Your task to perform on an android device: turn off sleep mode Image 0: 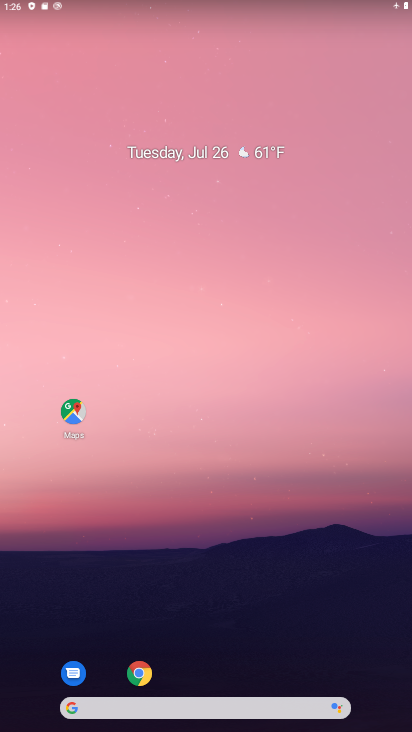
Step 0: drag from (227, 660) to (277, 166)
Your task to perform on an android device: turn off sleep mode Image 1: 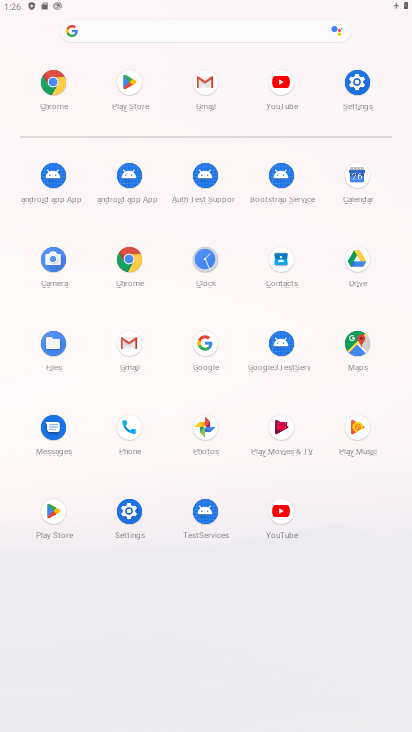
Step 1: click (130, 505)
Your task to perform on an android device: turn off sleep mode Image 2: 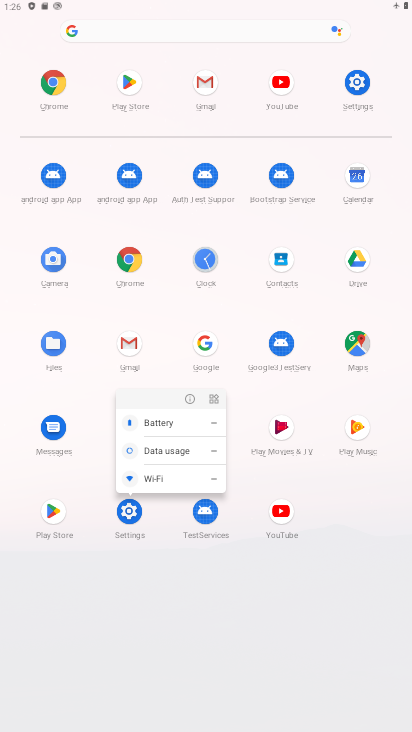
Step 2: click (193, 398)
Your task to perform on an android device: turn off sleep mode Image 3: 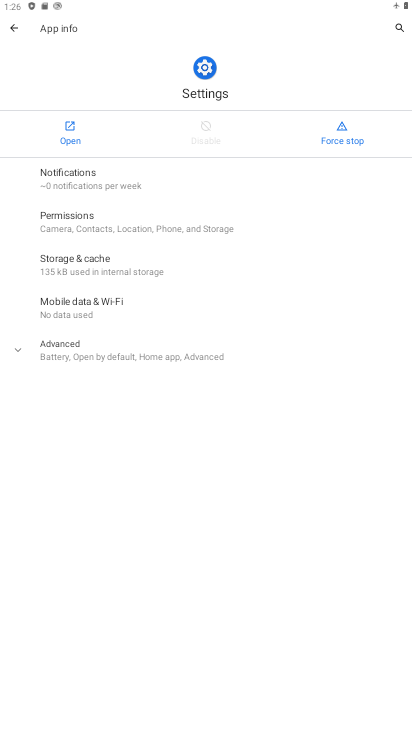
Step 3: click (72, 130)
Your task to perform on an android device: turn off sleep mode Image 4: 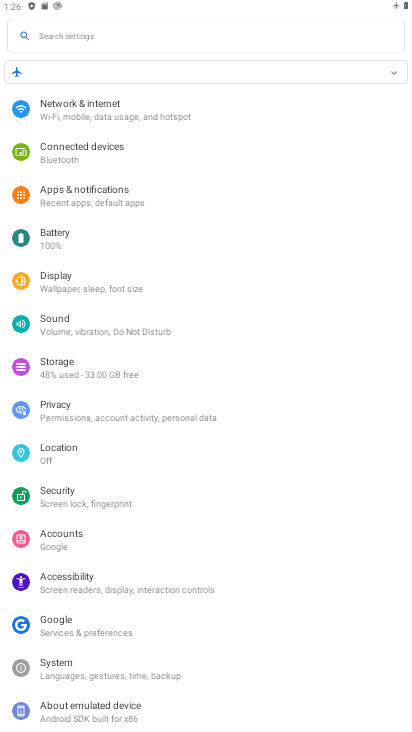
Step 4: drag from (153, 527) to (189, 231)
Your task to perform on an android device: turn off sleep mode Image 5: 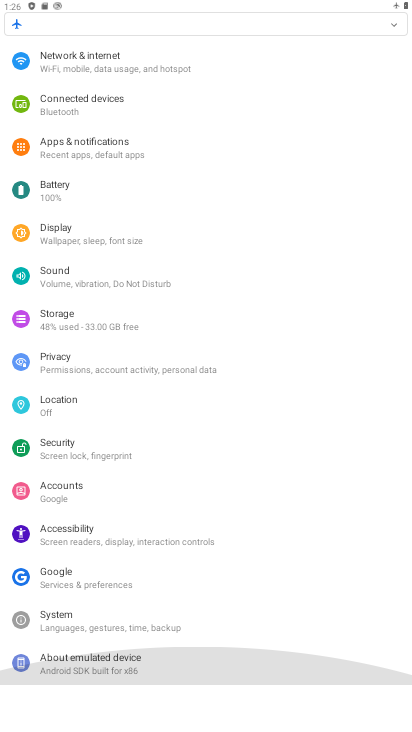
Step 5: drag from (189, 212) to (192, 695)
Your task to perform on an android device: turn off sleep mode Image 6: 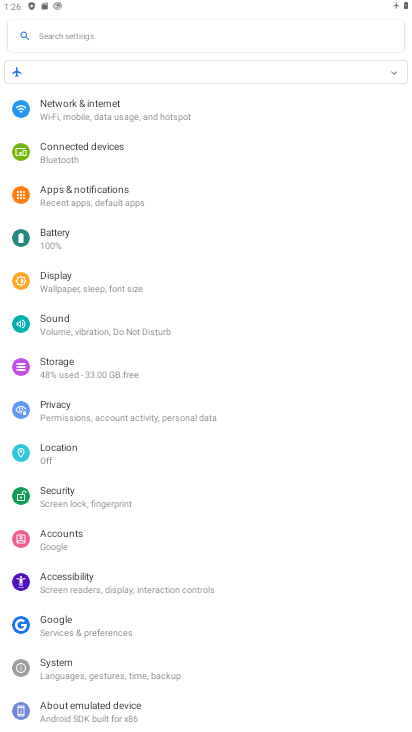
Step 6: click (75, 279)
Your task to perform on an android device: turn off sleep mode Image 7: 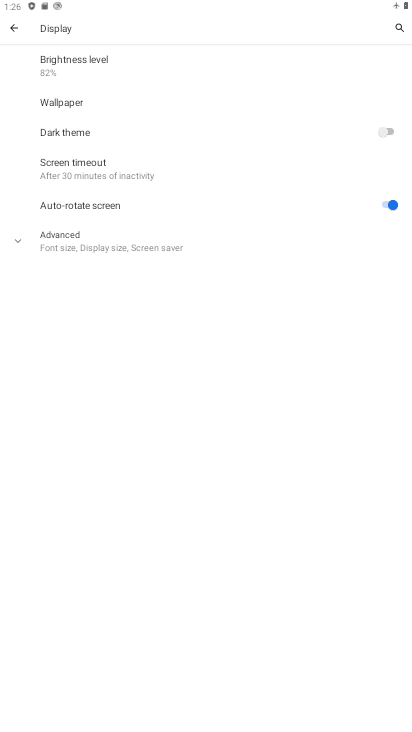
Step 7: click (117, 171)
Your task to perform on an android device: turn off sleep mode Image 8: 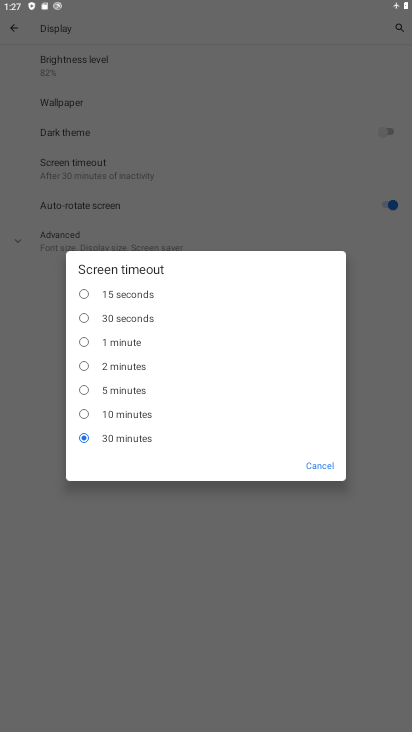
Step 8: task complete